Your task to perform on an android device: turn on airplane mode Image 0: 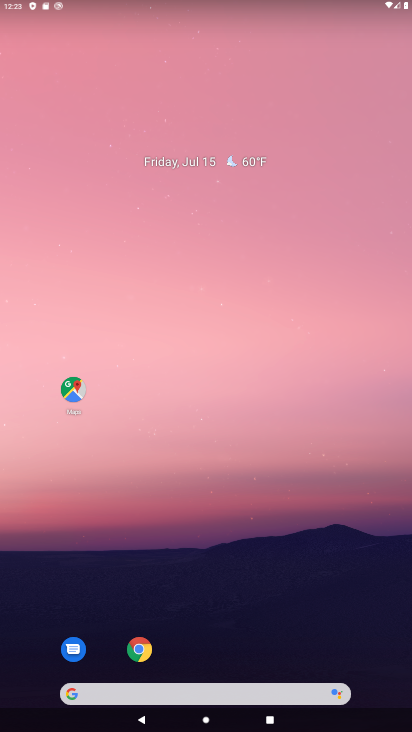
Step 0: drag from (118, 666) to (147, 404)
Your task to perform on an android device: turn on airplane mode Image 1: 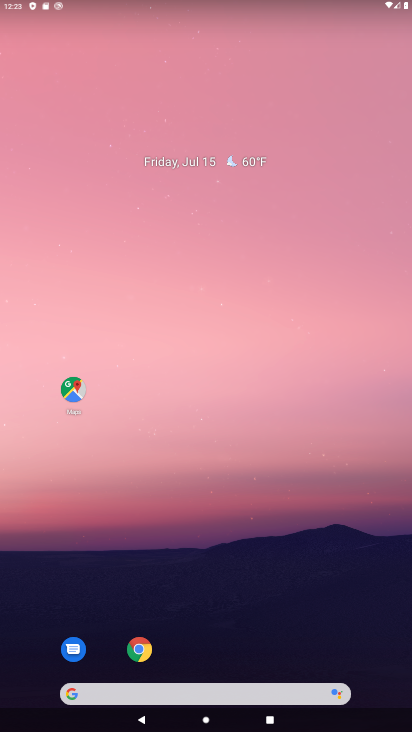
Step 1: drag from (284, 646) to (284, 280)
Your task to perform on an android device: turn on airplane mode Image 2: 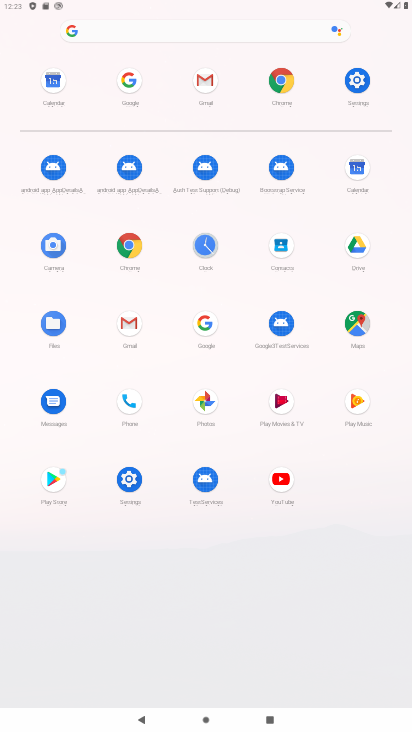
Step 2: click (366, 77)
Your task to perform on an android device: turn on airplane mode Image 3: 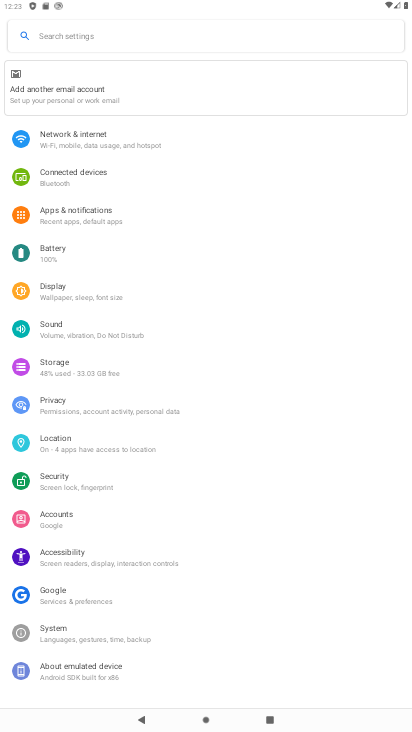
Step 3: click (102, 139)
Your task to perform on an android device: turn on airplane mode Image 4: 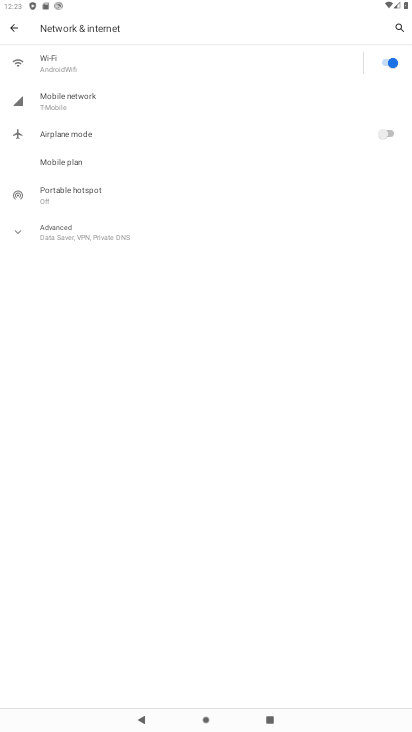
Step 4: click (392, 127)
Your task to perform on an android device: turn on airplane mode Image 5: 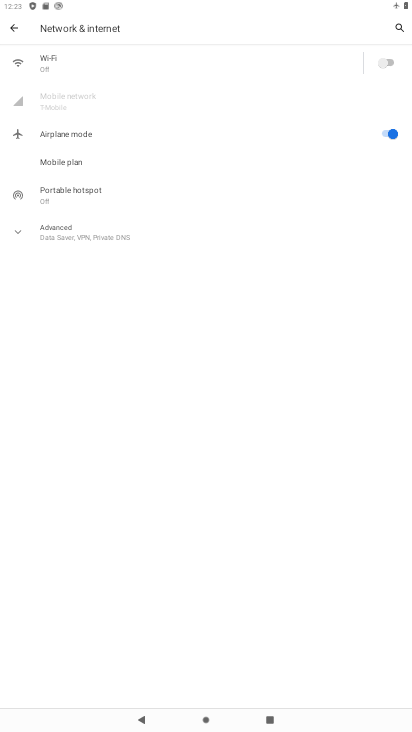
Step 5: task complete